Your task to perform on an android device: turn on showing notifications on the lock screen Image 0: 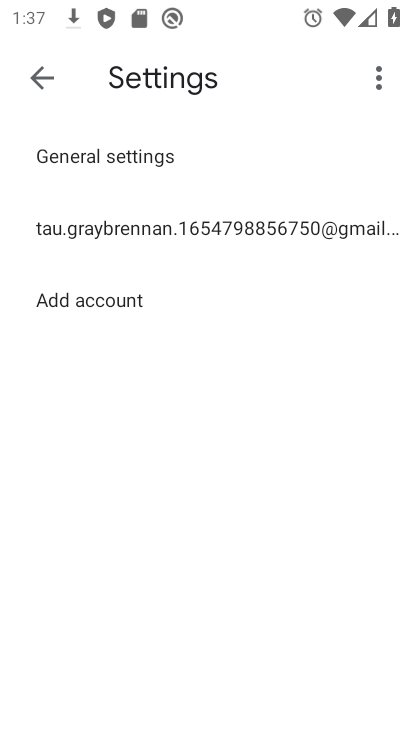
Step 0: press home button
Your task to perform on an android device: turn on showing notifications on the lock screen Image 1: 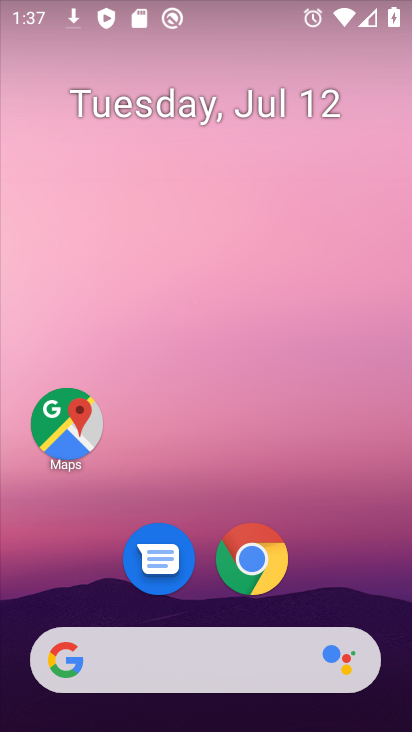
Step 1: drag from (355, 535) to (354, 127)
Your task to perform on an android device: turn on showing notifications on the lock screen Image 2: 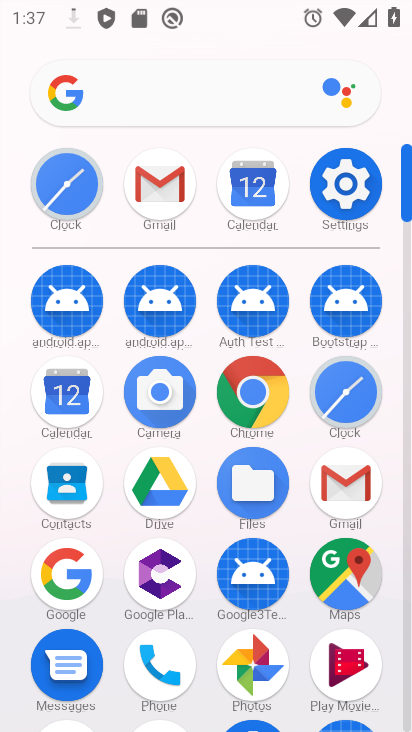
Step 2: click (355, 196)
Your task to perform on an android device: turn on showing notifications on the lock screen Image 3: 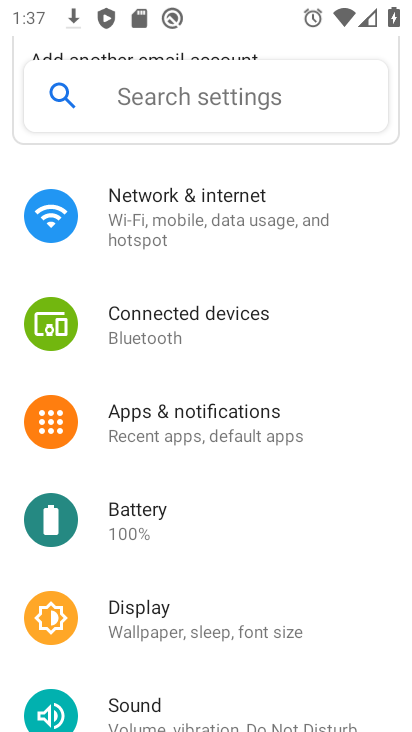
Step 3: drag from (359, 585) to (350, 435)
Your task to perform on an android device: turn on showing notifications on the lock screen Image 4: 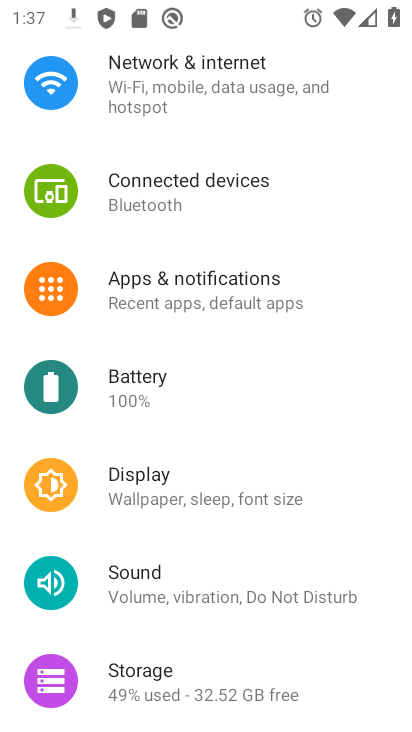
Step 4: drag from (368, 535) to (373, 382)
Your task to perform on an android device: turn on showing notifications on the lock screen Image 5: 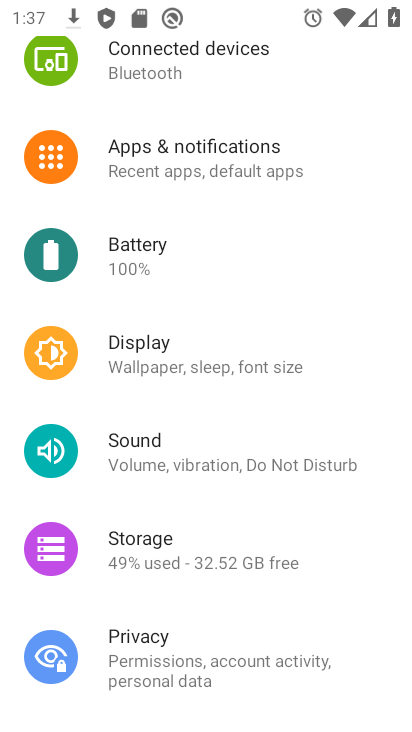
Step 5: drag from (360, 571) to (342, 370)
Your task to perform on an android device: turn on showing notifications on the lock screen Image 6: 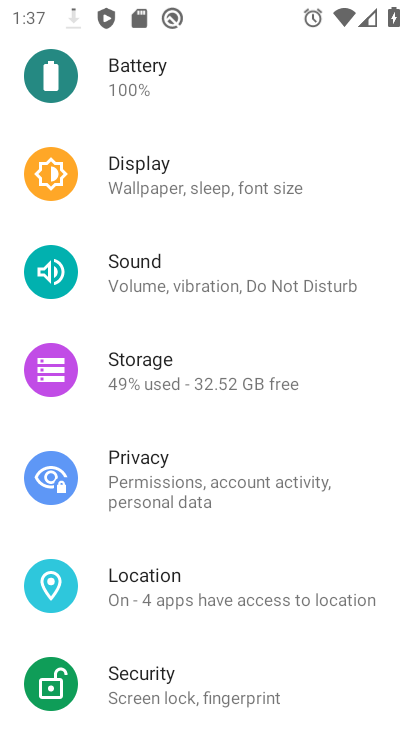
Step 6: drag from (363, 485) to (370, 180)
Your task to perform on an android device: turn on showing notifications on the lock screen Image 7: 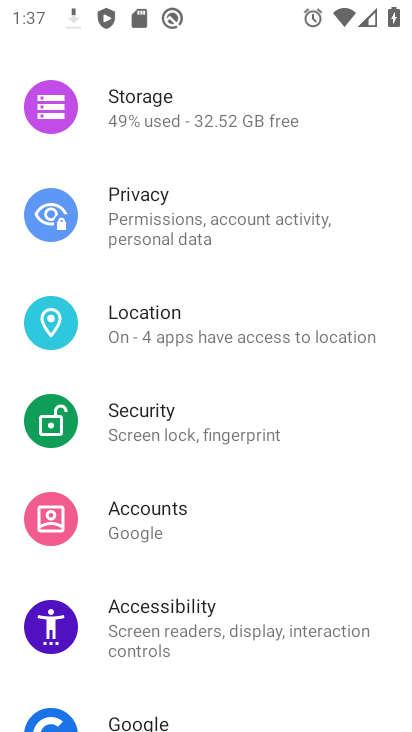
Step 7: drag from (371, 222) to (360, 346)
Your task to perform on an android device: turn on showing notifications on the lock screen Image 8: 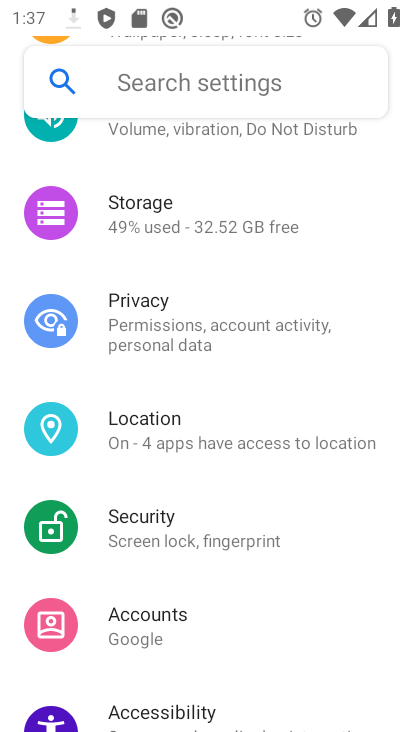
Step 8: drag from (357, 216) to (352, 338)
Your task to perform on an android device: turn on showing notifications on the lock screen Image 9: 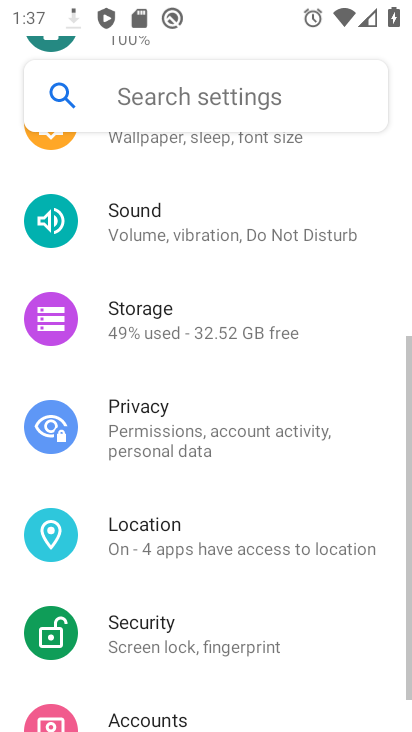
Step 9: drag from (373, 200) to (363, 330)
Your task to perform on an android device: turn on showing notifications on the lock screen Image 10: 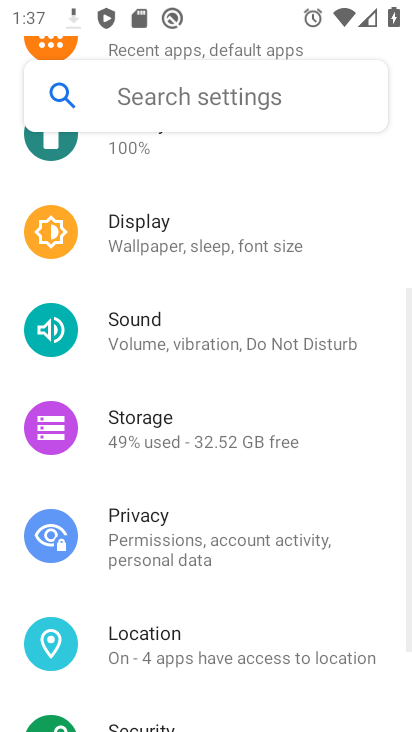
Step 10: drag from (362, 202) to (360, 317)
Your task to perform on an android device: turn on showing notifications on the lock screen Image 11: 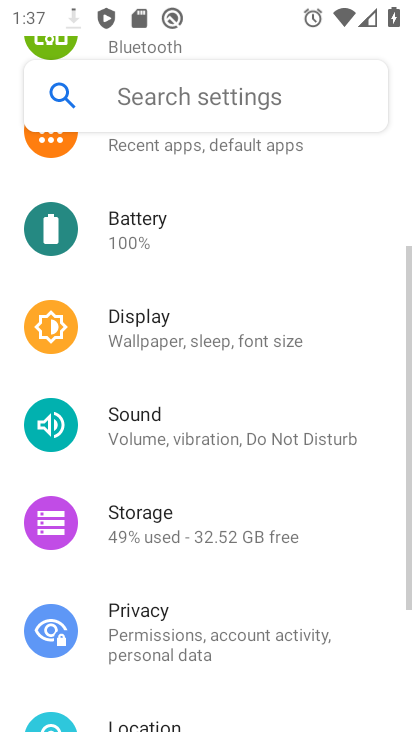
Step 11: drag from (359, 212) to (355, 328)
Your task to perform on an android device: turn on showing notifications on the lock screen Image 12: 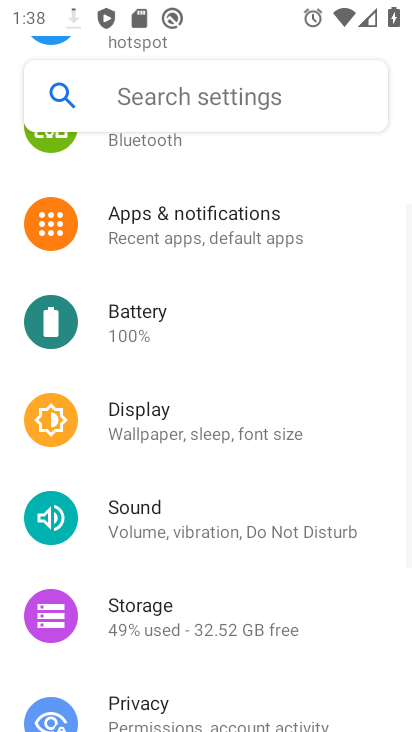
Step 12: drag from (344, 205) to (342, 346)
Your task to perform on an android device: turn on showing notifications on the lock screen Image 13: 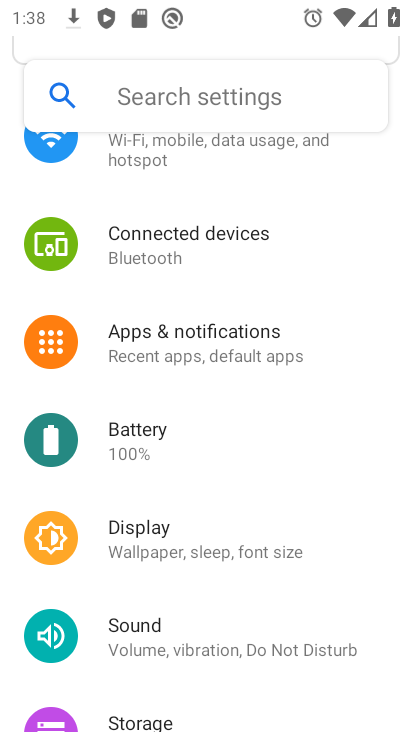
Step 13: drag from (337, 224) to (348, 378)
Your task to perform on an android device: turn on showing notifications on the lock screen Image 14: 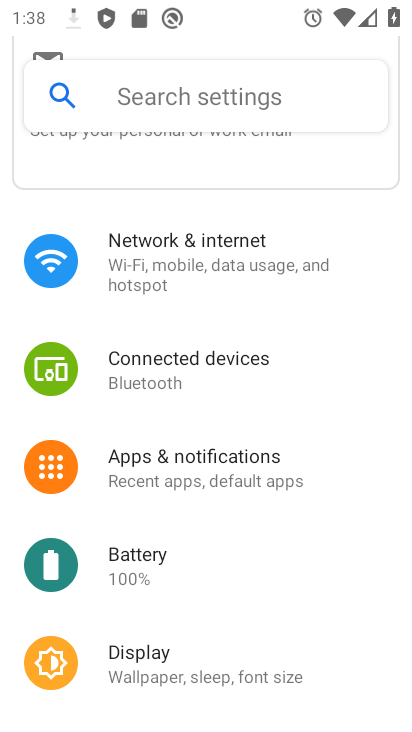
Step 14: click (282, 454)
Your task to perform on an android device: turn on showing notifications on the lock screen Image 15: 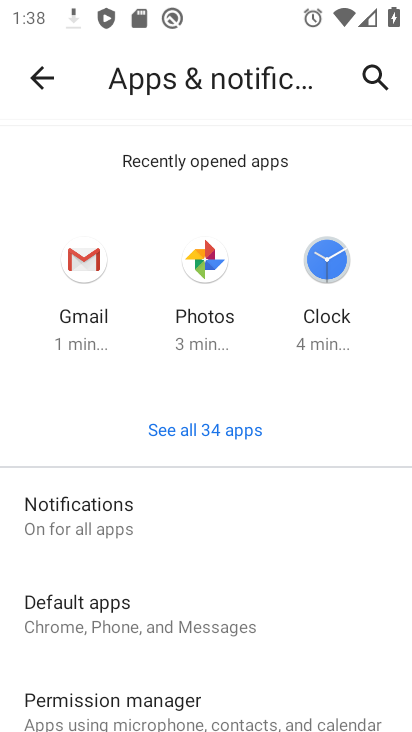
Step 15: drag from (326, 518) to (332, 402)
Your task to perform on an android device: turn on showing notifications on the lock screen Image 16: 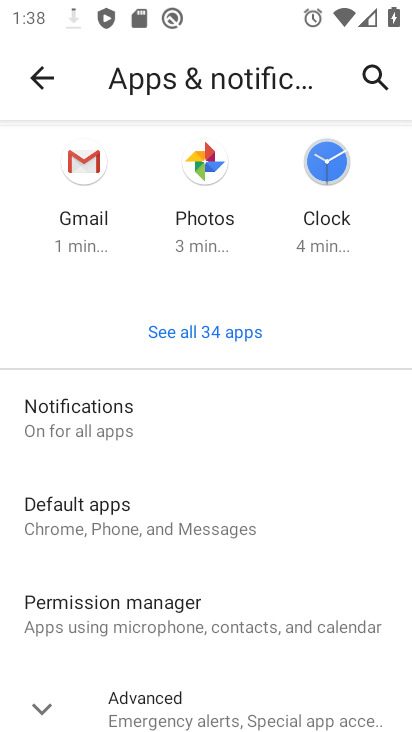
Step 16: click (150, 428)
Your task to perform on an android device: turn on showing notifications on the lock screen Image 17: 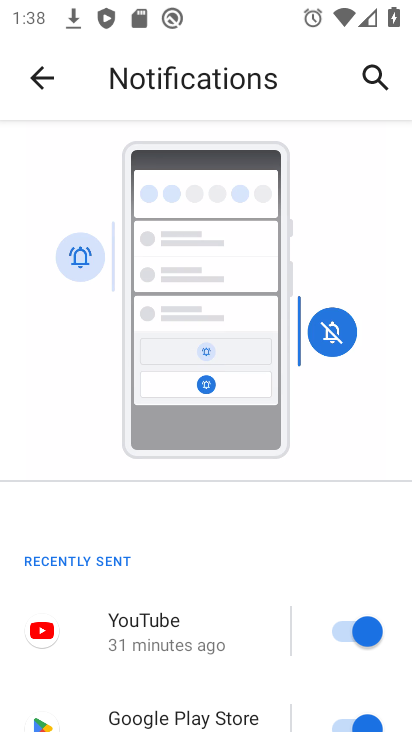
Step 17: drag from (333, 505) to (326, 316)
Your task to perform on an android device: turn on showing notifications on the lock screen Image 18: 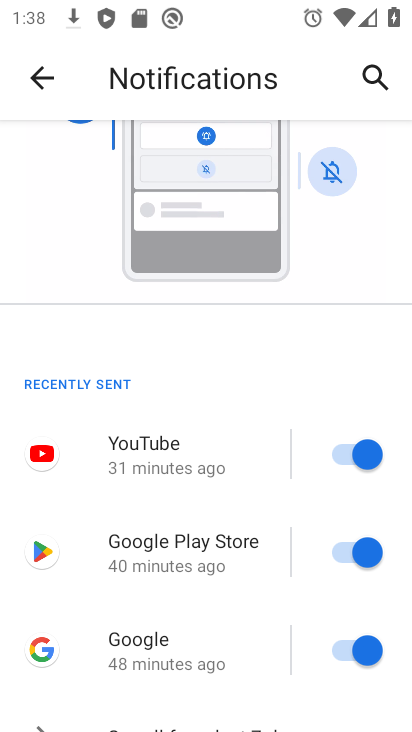
Step 18: drag from (260, 482) to (256, 314)
Your task to perform on an android device: turn on showing notifications on the lock screen Image 19: 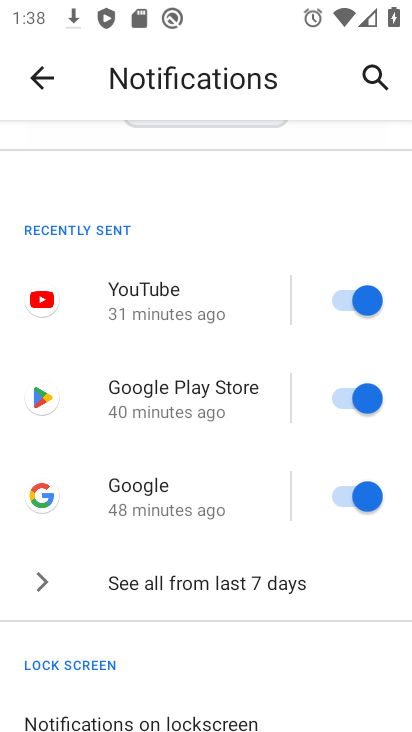
Step 19: drag from (245, 466) to (259, 235)
Your task to perform on an android device: turn on showing notifications on the lock screen Image 20: 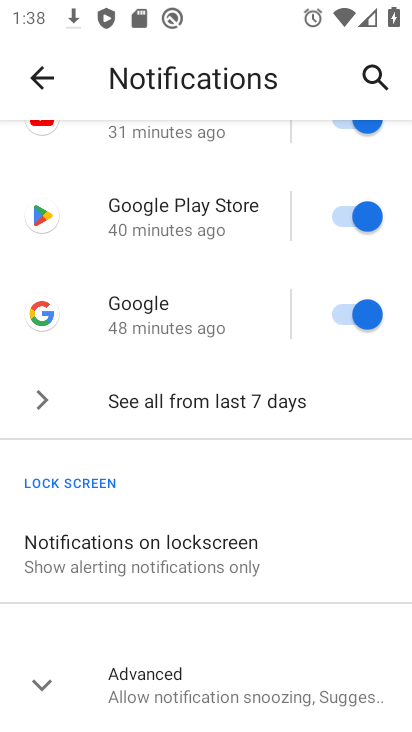
Step 20: click (270, 552)
Your task to perform on an android device: turn on showing notifications on the lock screen Image 21: 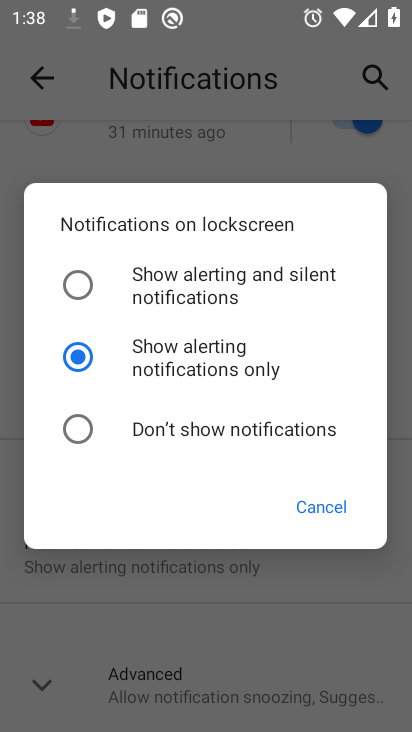
Step 21: task complete